Your task to perform on an android device: see tabs open on other devices in the chrome app Image 0: 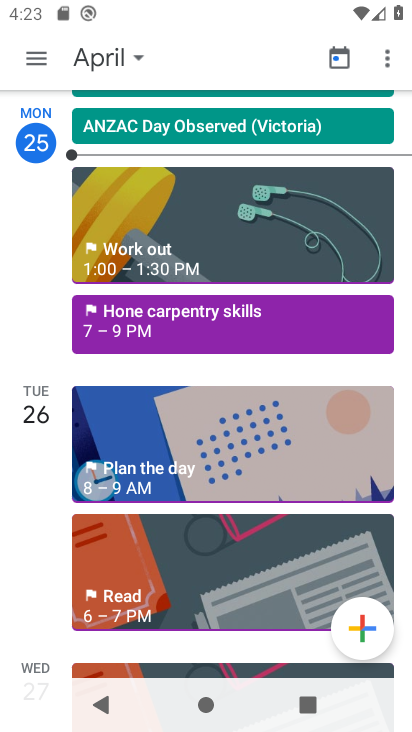
Step 0: press home button
Your task to perform on an android device: see tabs open on other devices in the chrome app Image 1: 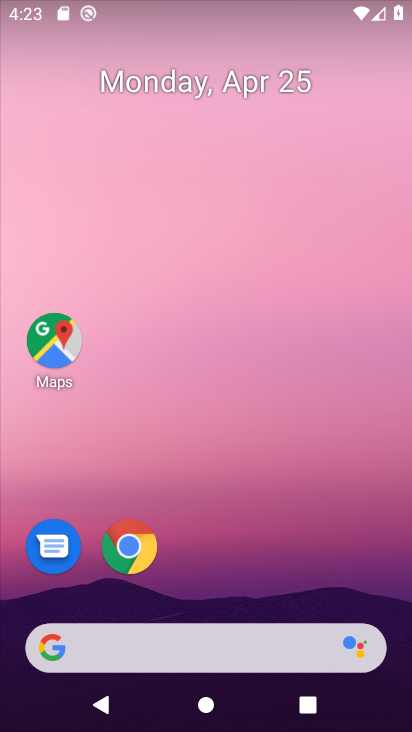
Step 1: click (118, 549)
Your task to perform on an android device: see tabs open on other devices in the chrome app Image 2: 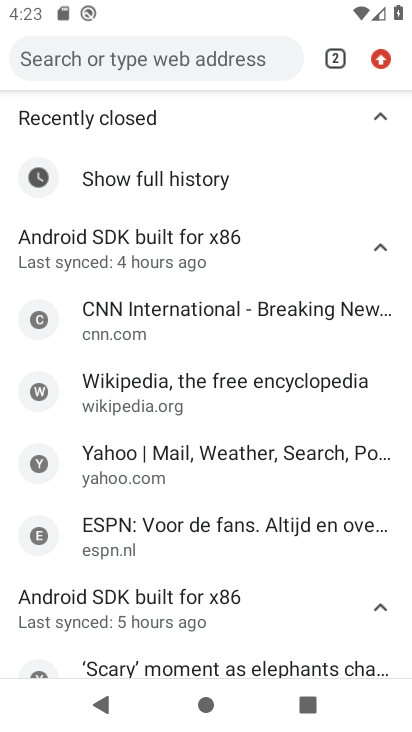
Step 2: click (379, 63)
Your task to perform on an android device: see tabs open on other devices in the chrome app Image 3: 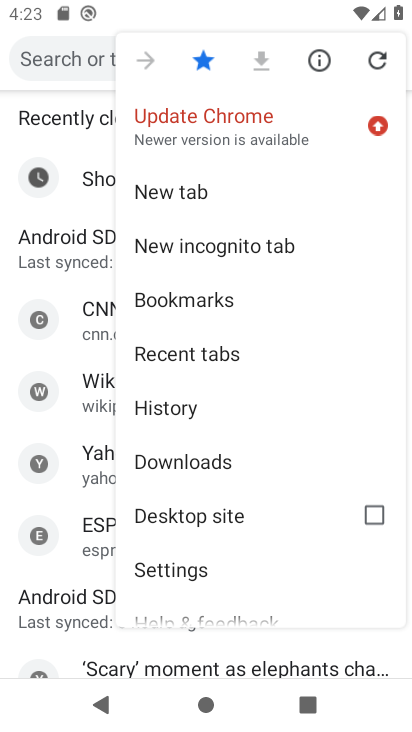
Step 3: click (238, 346)
Your task to perform on an android device: see tabs open on other devices in the chrome app Image 4: 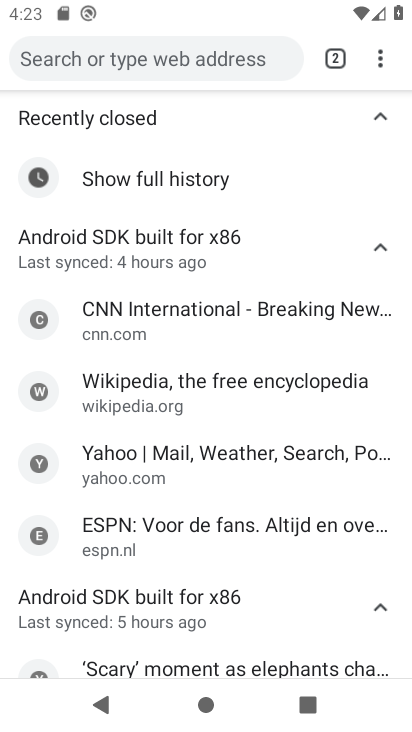
Step 4: task complete